Your task to perform on an android device: Show the shopping cart on ebay.com. Search for "usb-c to usb-a" on ebay.com, select the first entry, and add it to the cart. Image 0: 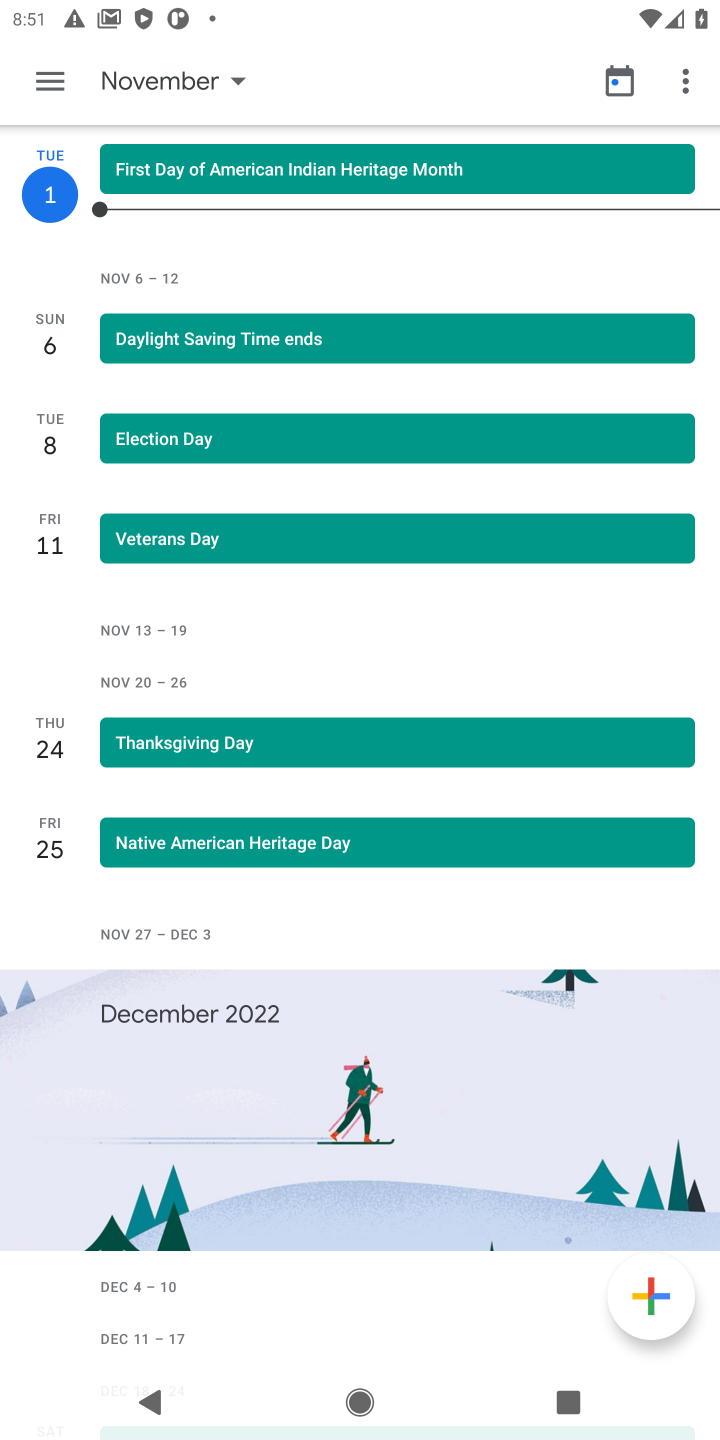
Step 0: press home button
Your task to perform on an android device: Show the shopping cart on ebay.com. Search for "usb-c to usb-a" on ebay.com, select the first entry, and add it to the cart. Image 1: 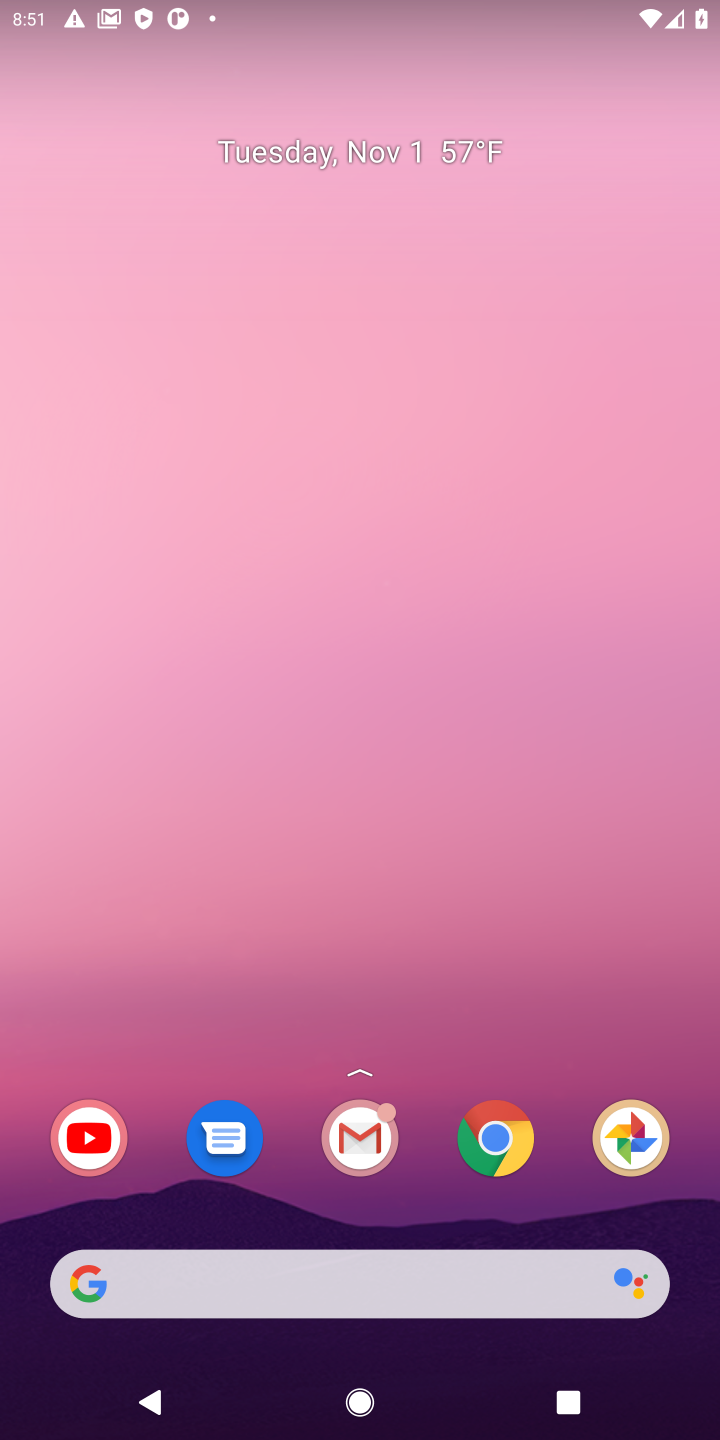
Step 1: click (499, 1165)
Your task to perform on an android device: Show the shopping cart on ebay.com. Search for "usb-c to usb-a" on ebay.com, select the first entry, and add it to the cart. Image 2: 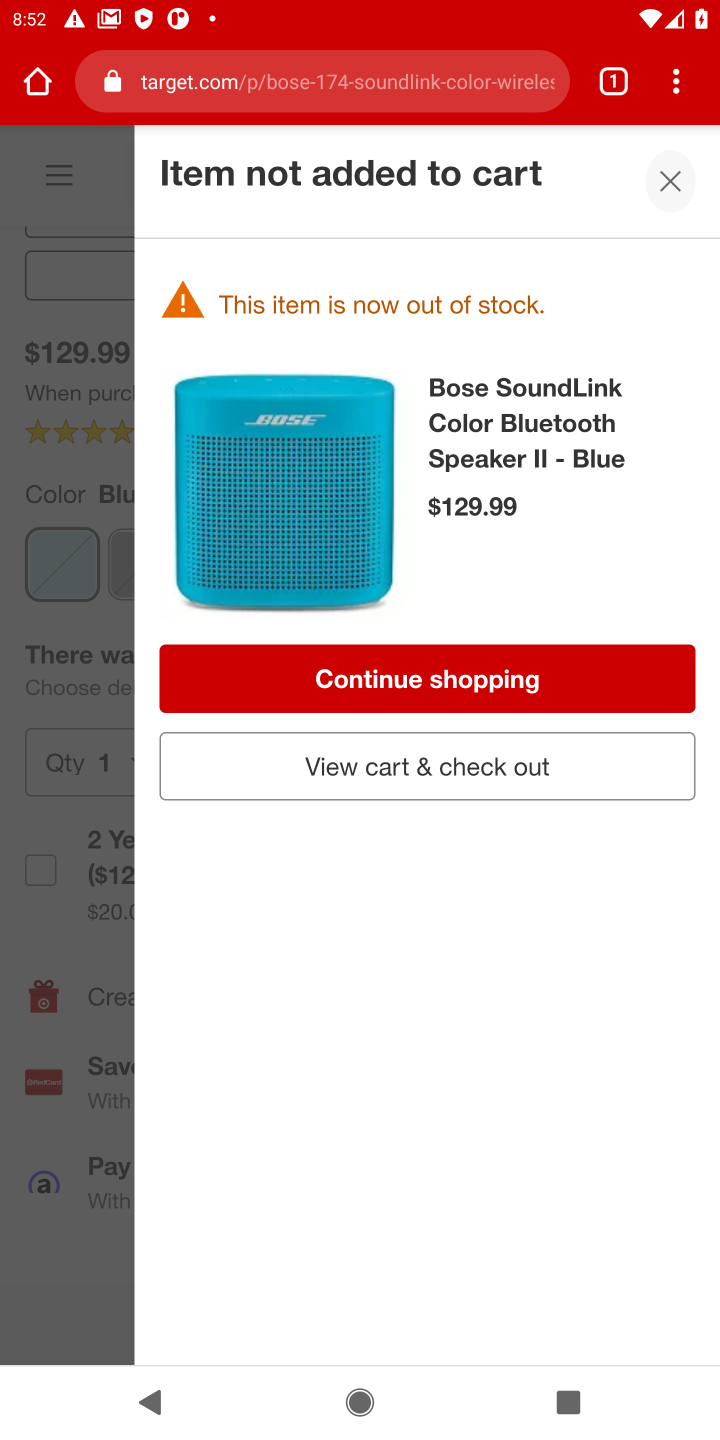
Step 2: click (236, 81)
Your task to perform on an android device: Show the shopping cart on ebay.com. Search for "usb-c to usb-a" on ebay.com, select the first entry, and add it to the cart. Image 3: 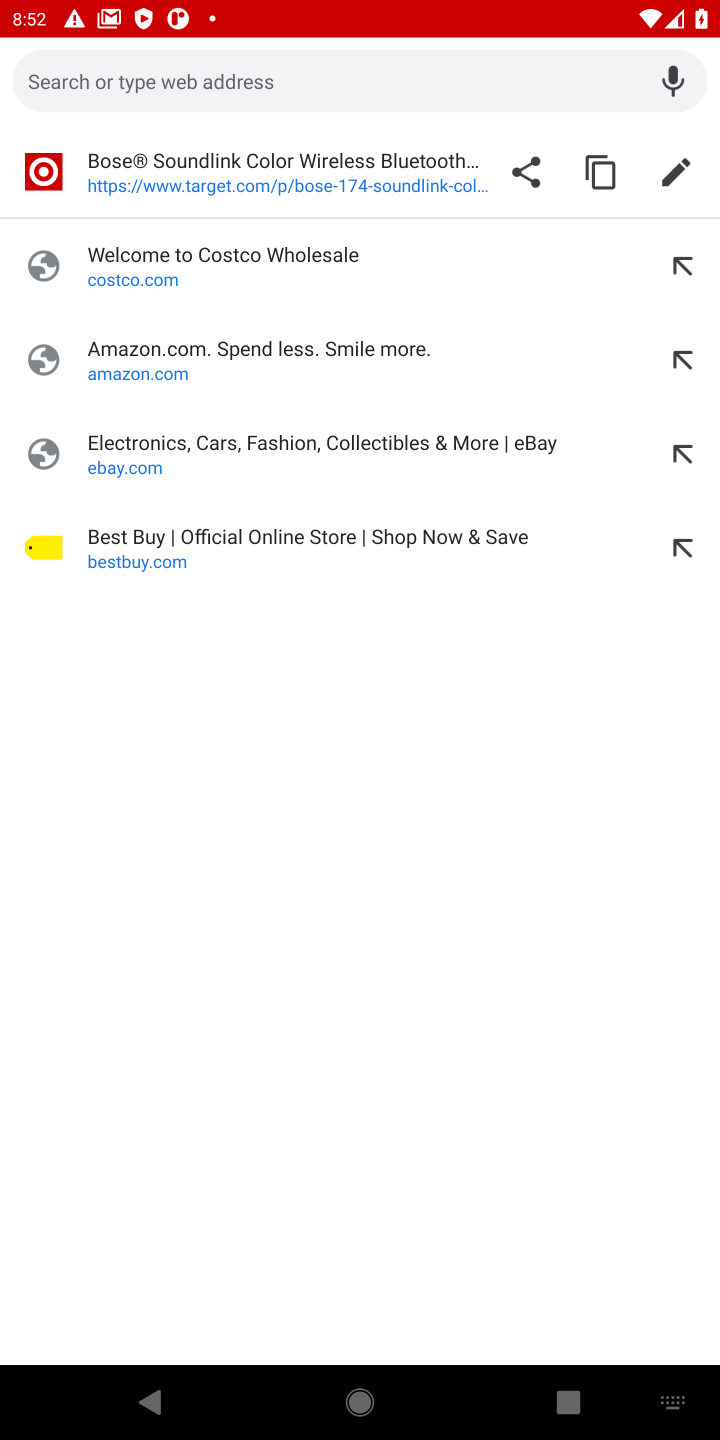
Step 3: click (109, 469)
Your task to perform on an android device: Show the shopping cart on ebay.com. Search for "usb-c to usb-a" on ebay.com, select the first entry, and add it to the cart. Image 4: 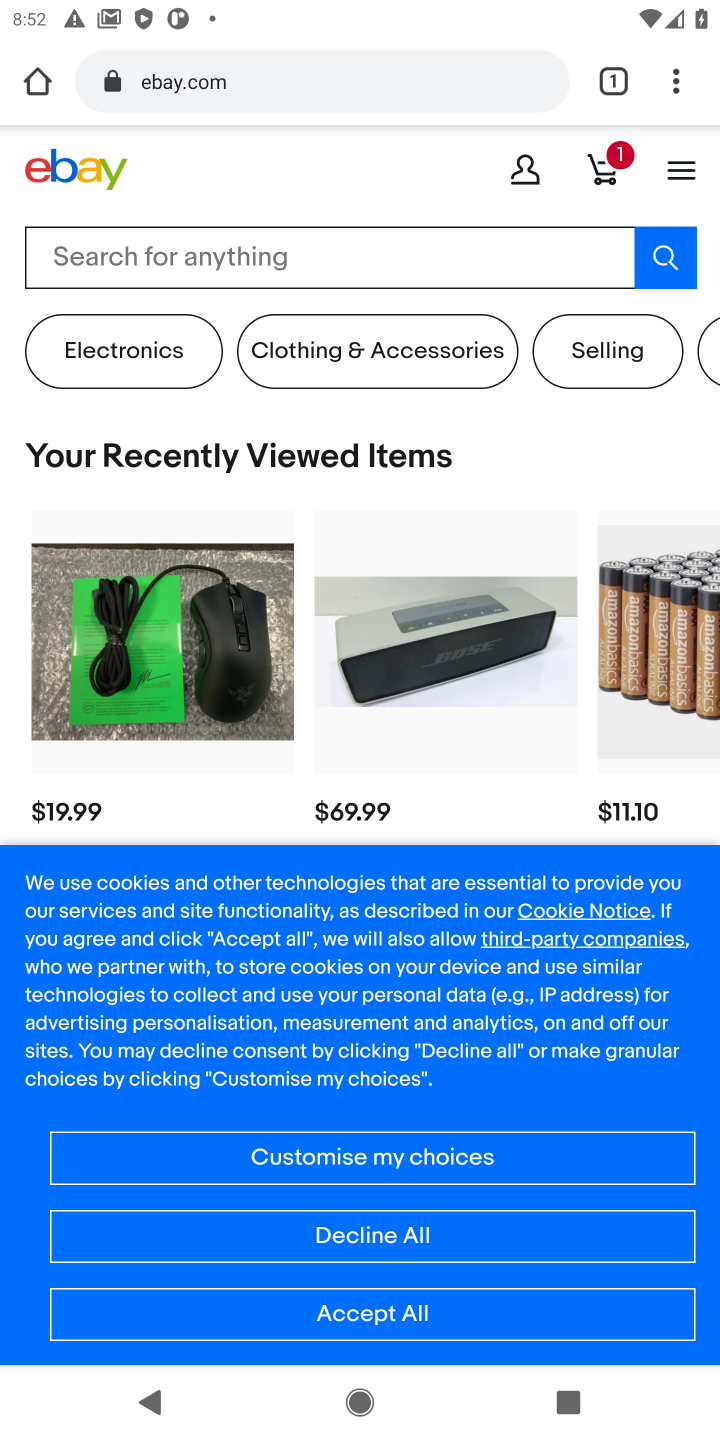
Step 4: click (604, 168)
Your task to perform on an android device: Show the shopping cart on ebay.com. Search for "usb-c to usb-a" on ebay.com, select the first entry, and add it to the cart. Image 5: 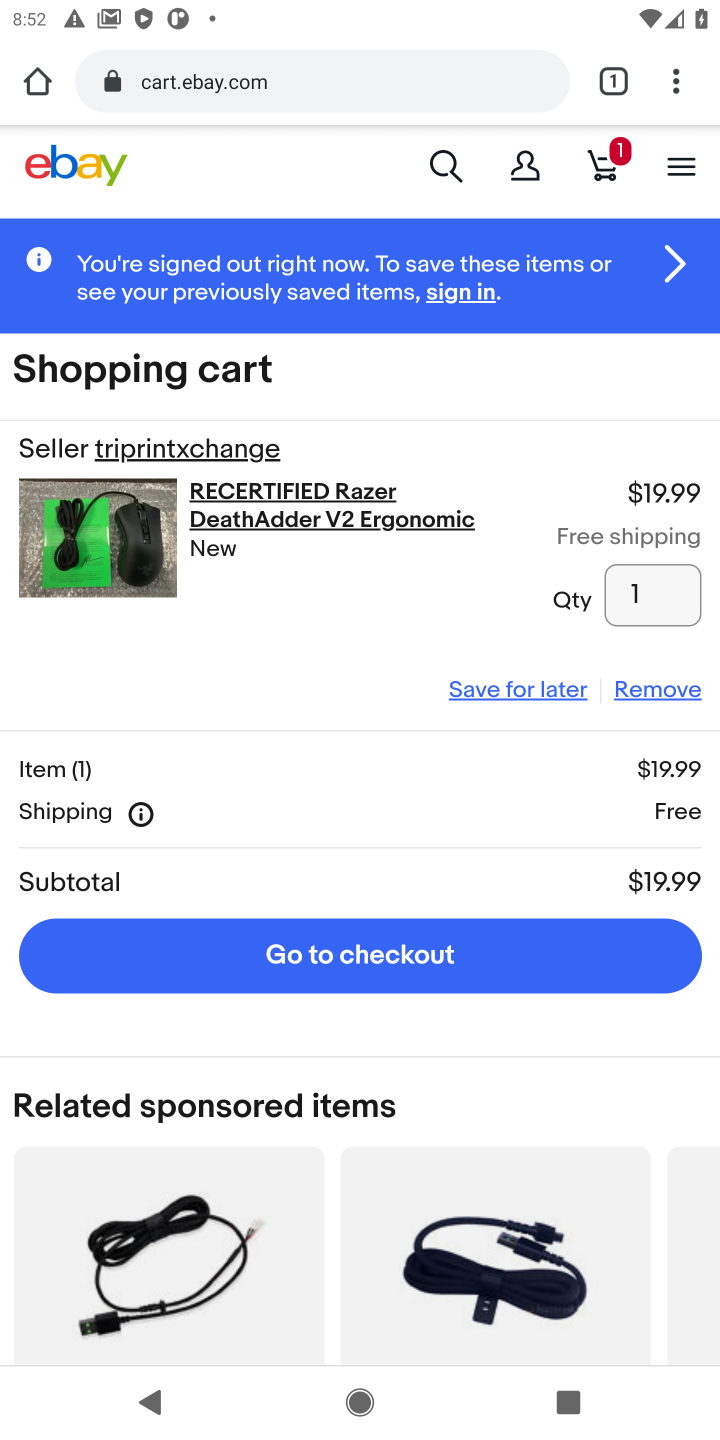
Step 5: click (433, 164)
Your task to perform on an android device: Show the shopping cart on ebay.com. Search for "usb-c to usb-a" on ebay.com, select the first entry, and add it to the cart. Image 6: 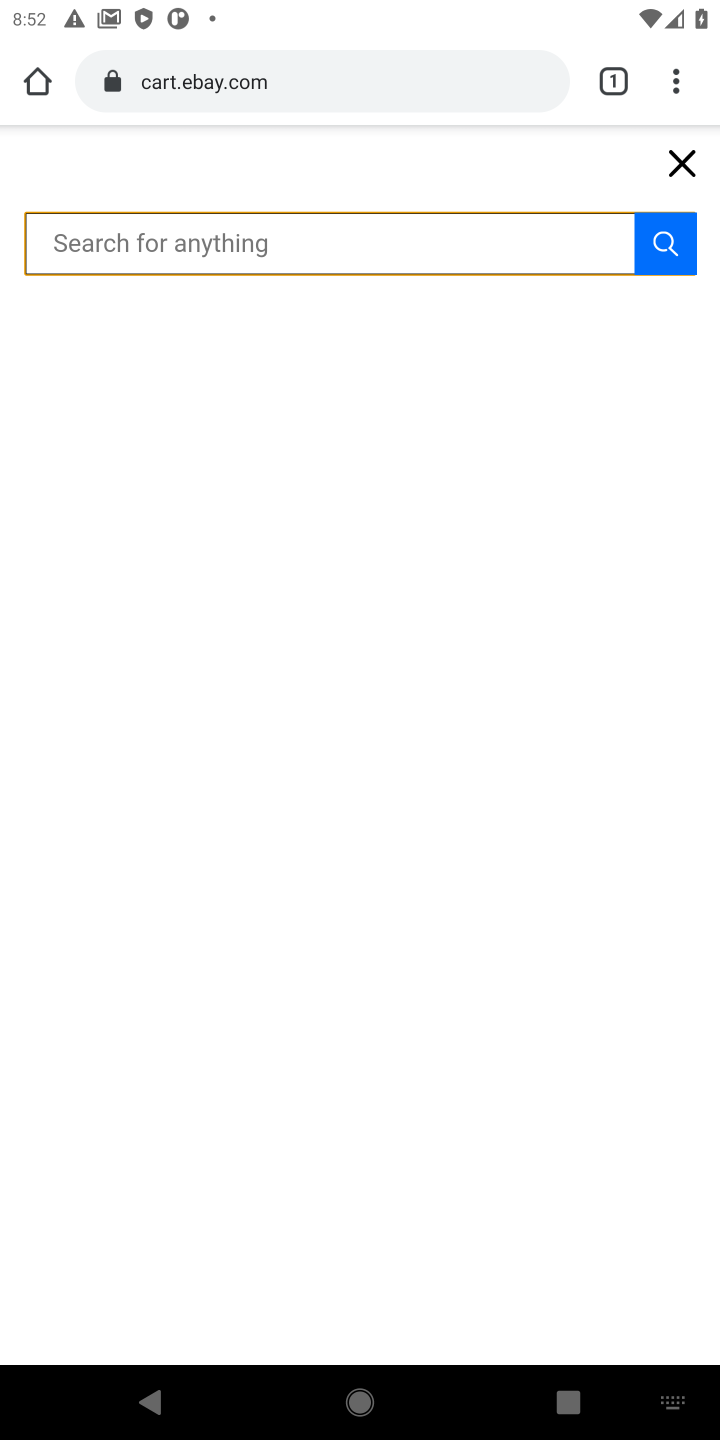
Step 6: type "usb-c to usb-a"
Your task to perform on an android device: Show the shopping cart on ebay.com. Search for "usb-c to usb-a" on ebay.com, select the first entry, and add it to the cart. Image 7: 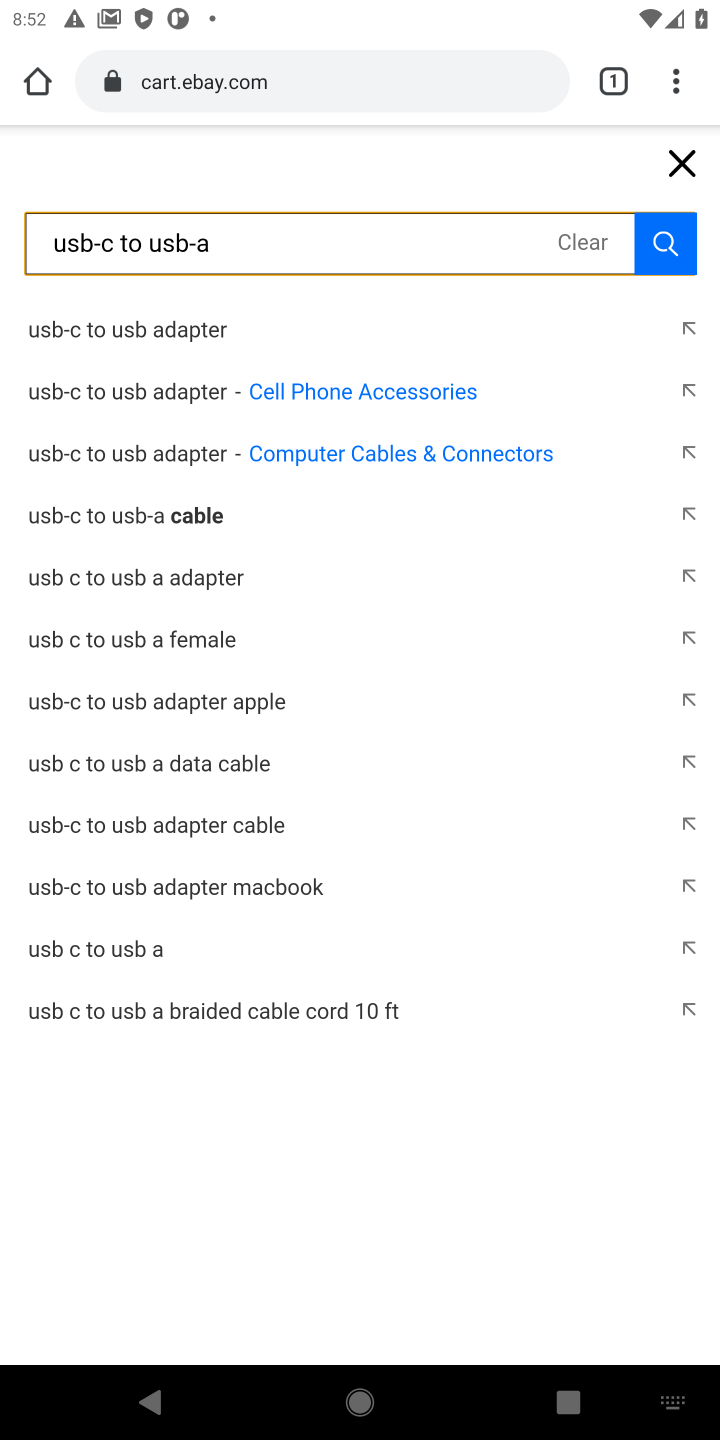
Step 7: click (113, 524)
Your task to perform on an android device: Show the shopping cart on ebay.com. Search for "usb-c to usb-a" on ebay.com, select the first entry, and add it to the cart. Image 8: 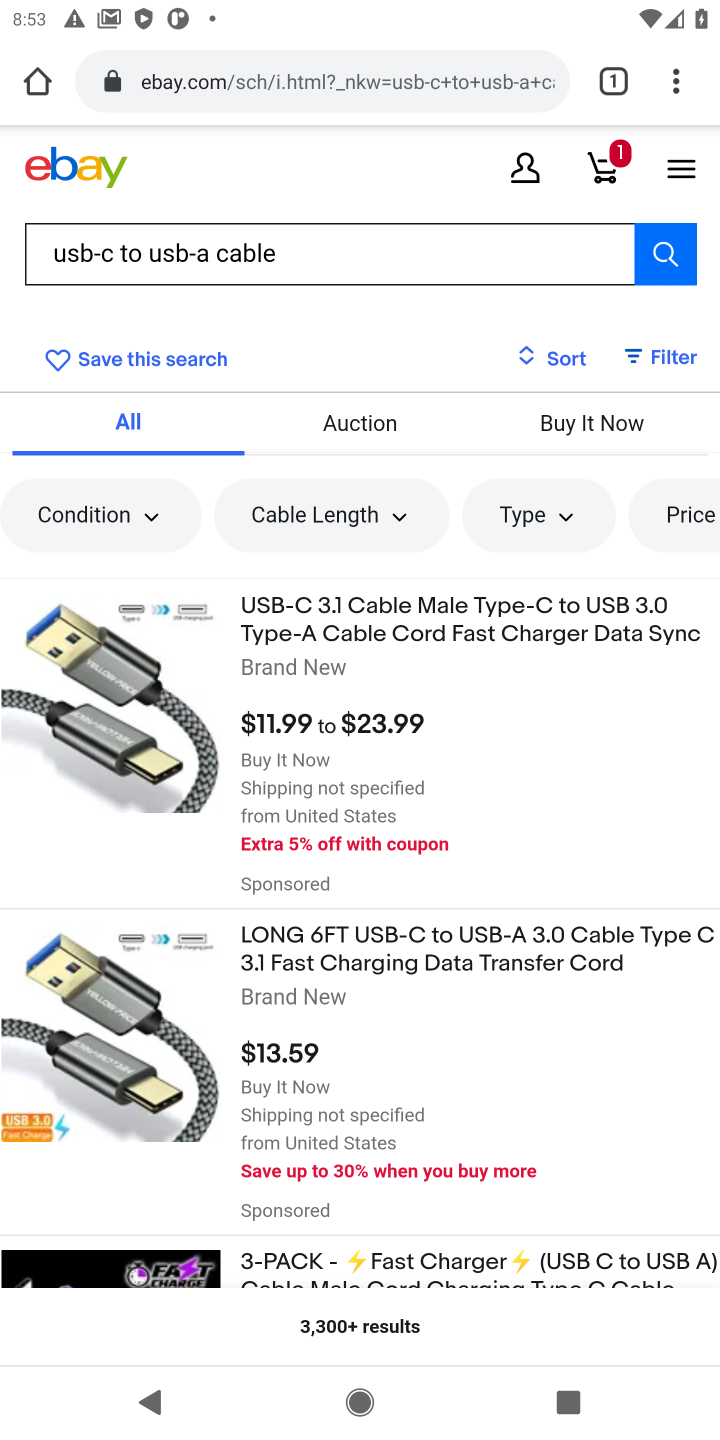
Step 8: click (246, 776)
Your task to perform on an android device: Show the shopping cart on ebay.com. Search for "usb-c to usb-a" on ebay.com, select the first entry, and add it to the cart. Image 9: 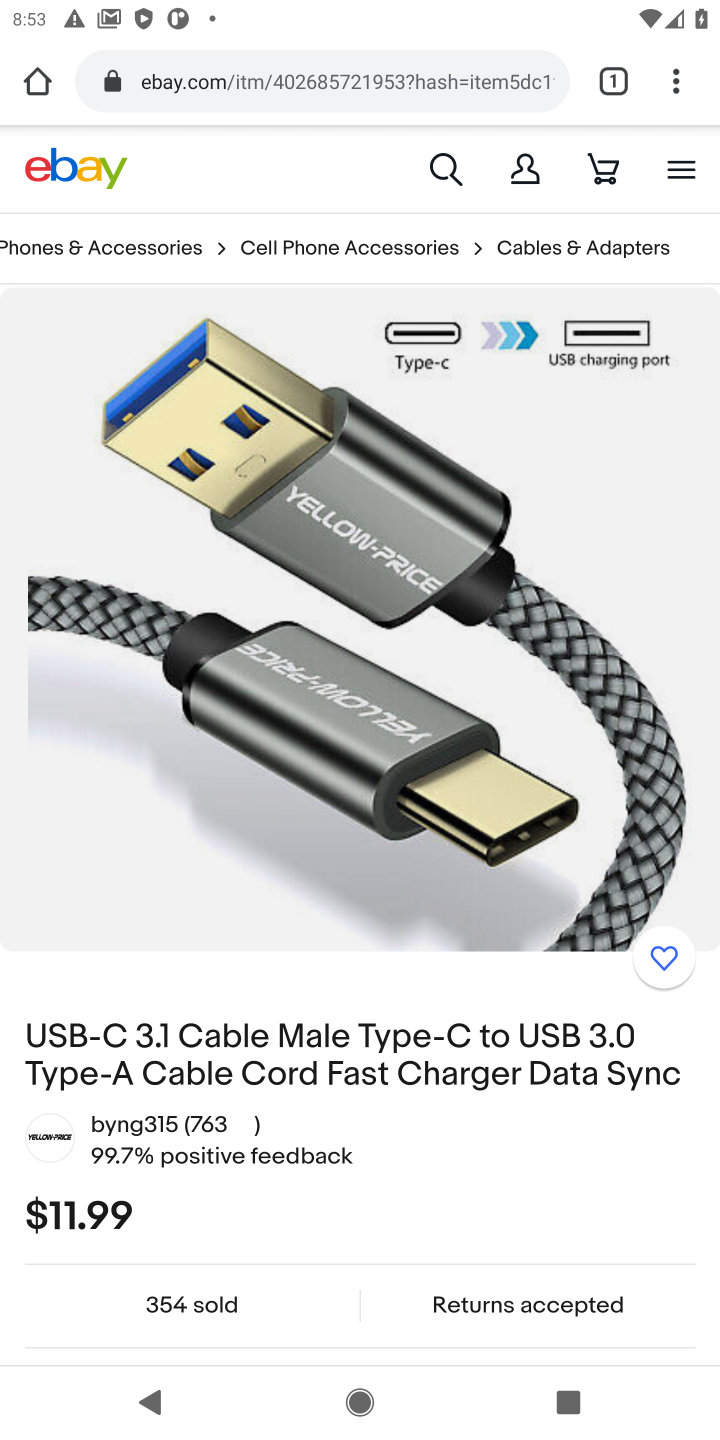
Step 9: drag from (412, 1046) to (419, 214)
Your task to perform on an android device: Show the shopping cart on ebay.com. Search for "usb-c to usb-a" on ebay.com, select the first entry, and add it to the cart. Image 10: 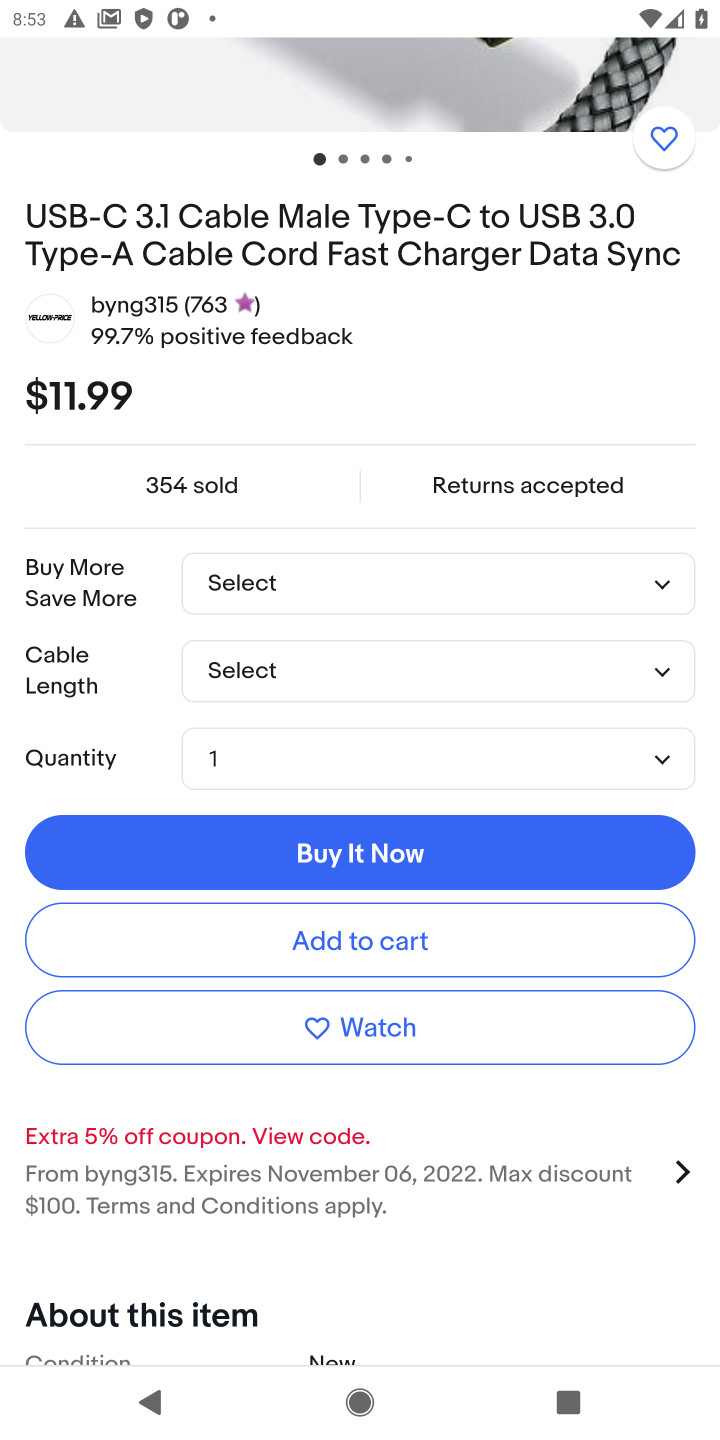
Step 10: click (339, 937)
Your task to perform on an android device: Show the shopping cart on ebay.com. Search for "usb-c to usb-a" on ebay.com, select the first entry, and add it to the cart. Image 11: 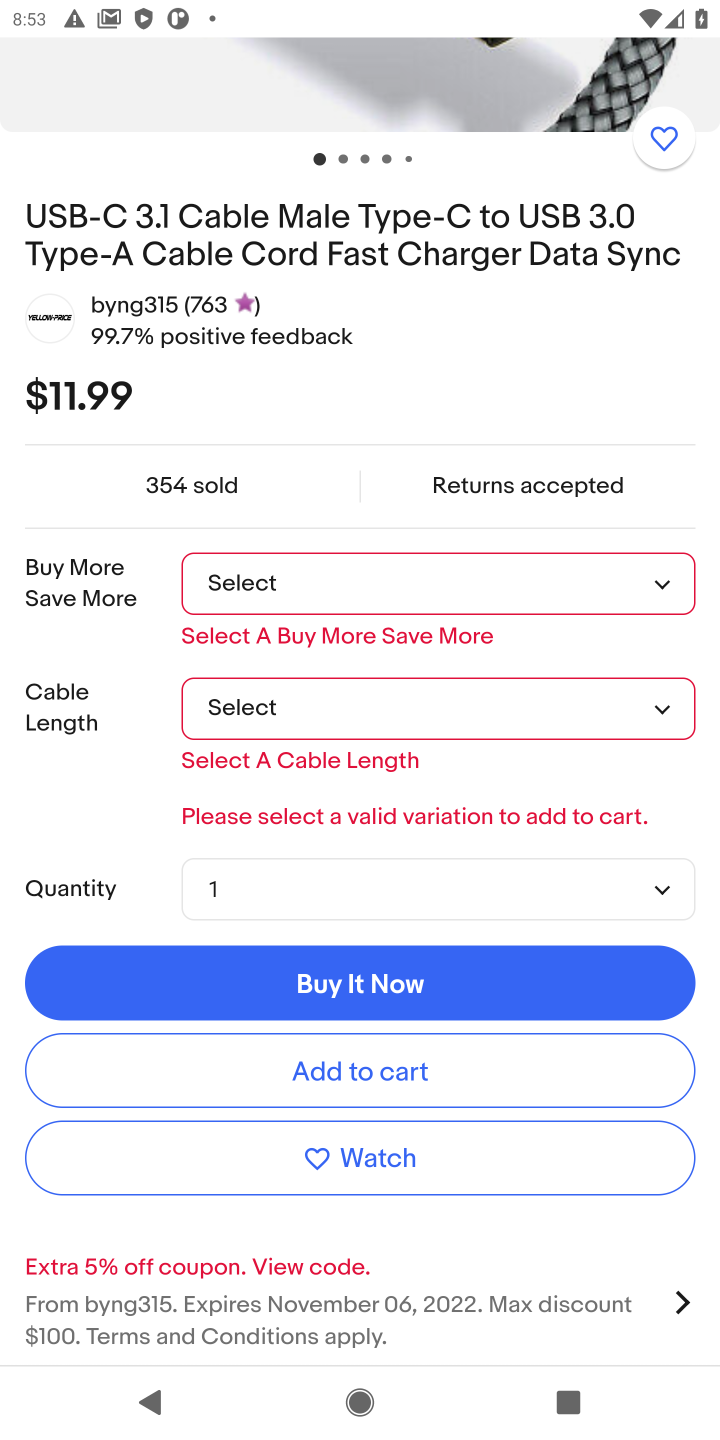
Step 11: click (658, 715)
Your task to perform on an android device: Show the shopping cart on ebay.com. Search for "usb-c to usb-a" on ebay.com, select the first entry, and add it to the cart. Image 12: 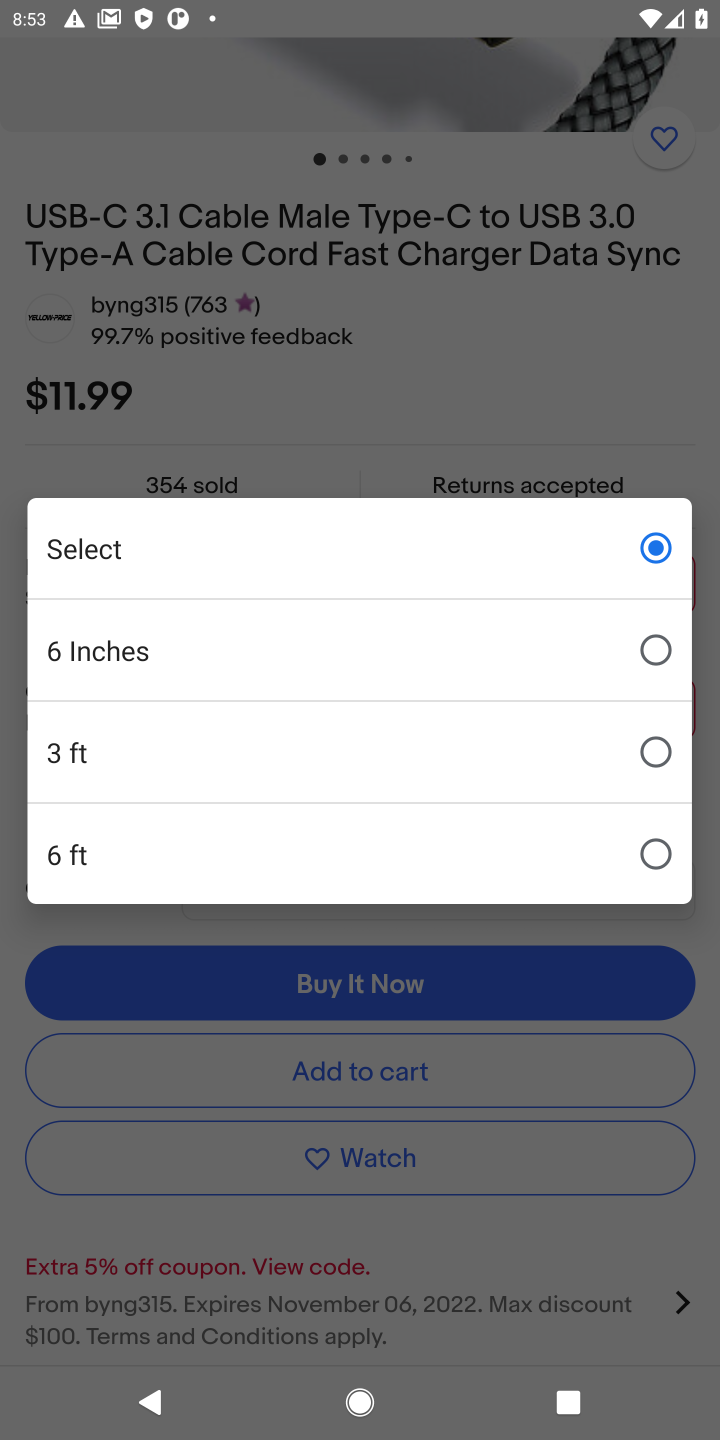
Step 12: click (77, 657)
Your task to perform on an android device: Show the shopping cart on ebay.com. Search for "usb-c to usb-a" on ebay.com, select the first entry, and add it to the cart. Image 13: 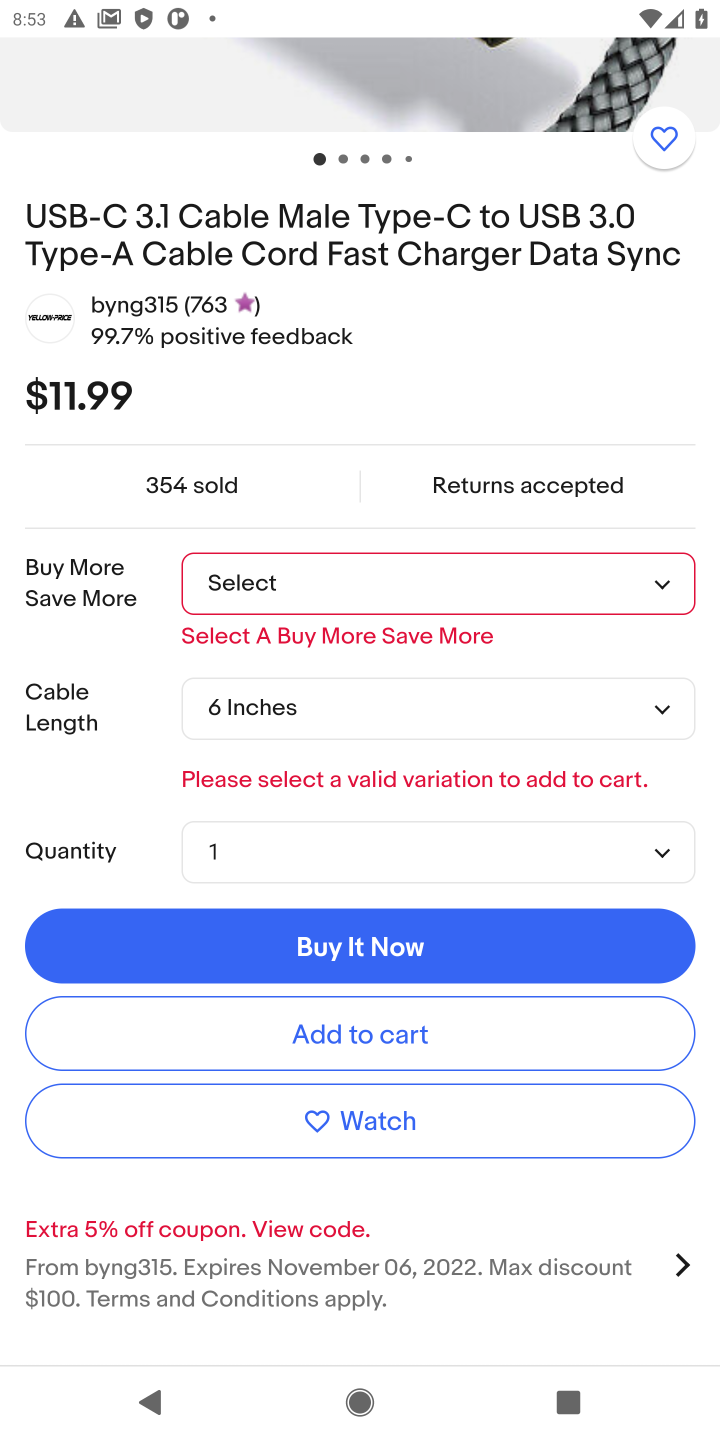
Step 13: click (667, 592)
Your task to perform on an android device: Show the shopping cart on ebay.com. Search for "usb-c to usb-a" on ebay.com, select the first entry, and add it to the cart. Image 14: 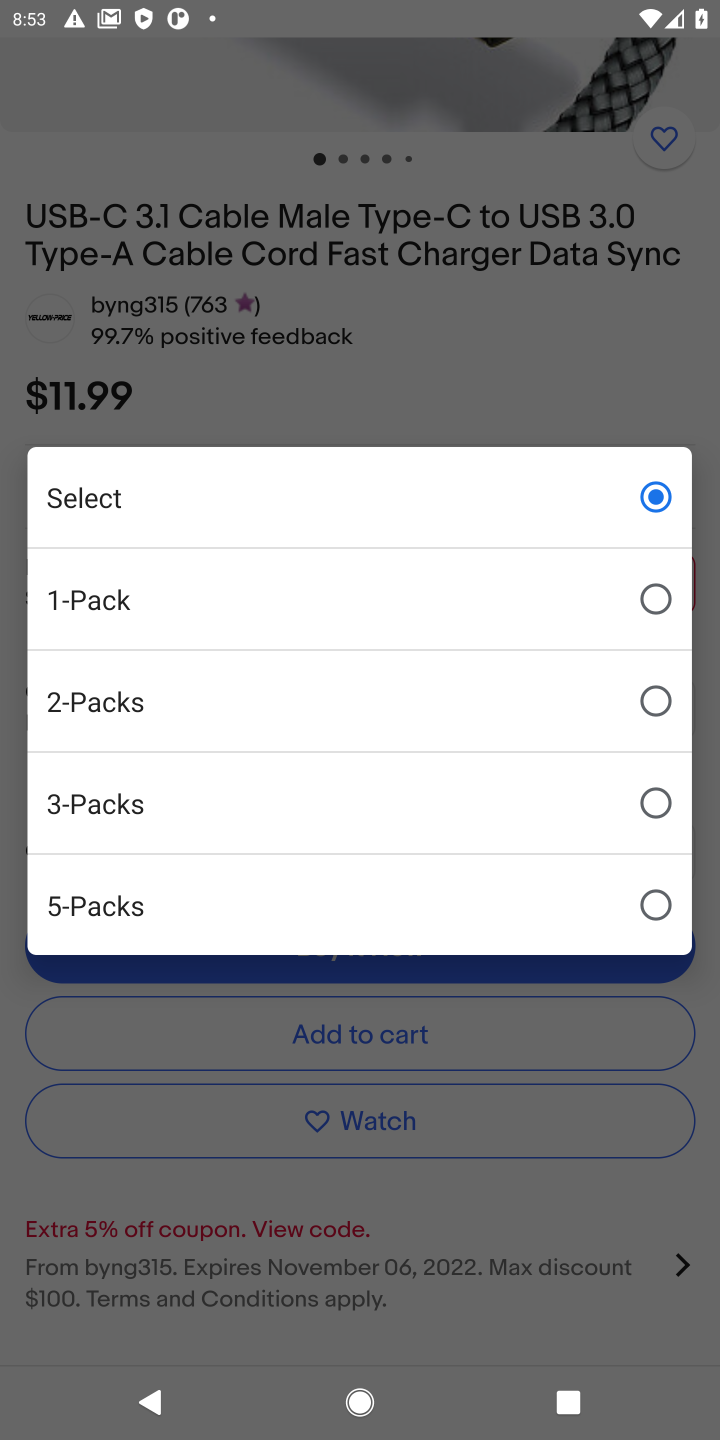
Step 14: click (115, 609)
Your task to perform on an android device: Show the shopping cart on ebay.com. Search for "usb-c to usb-a" on ebay.com, select the first entry, and add it to the cart. Image 15: 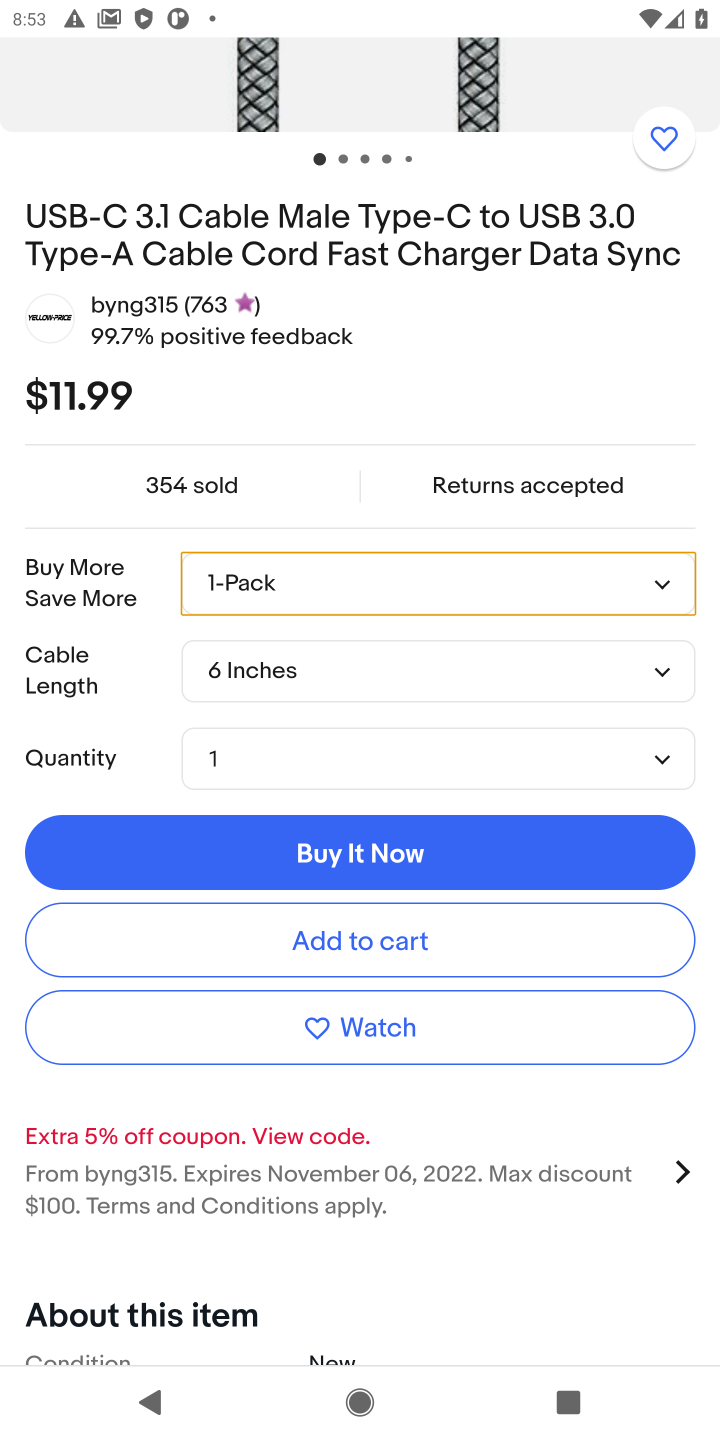
Step 15: click (338, 950)
Your task to perform on an android device: Show the shopping cart on ebay.com. Search for "usb-c to usb-a" on ebay.com, select the first entry, and add it to the cart. Image 16: 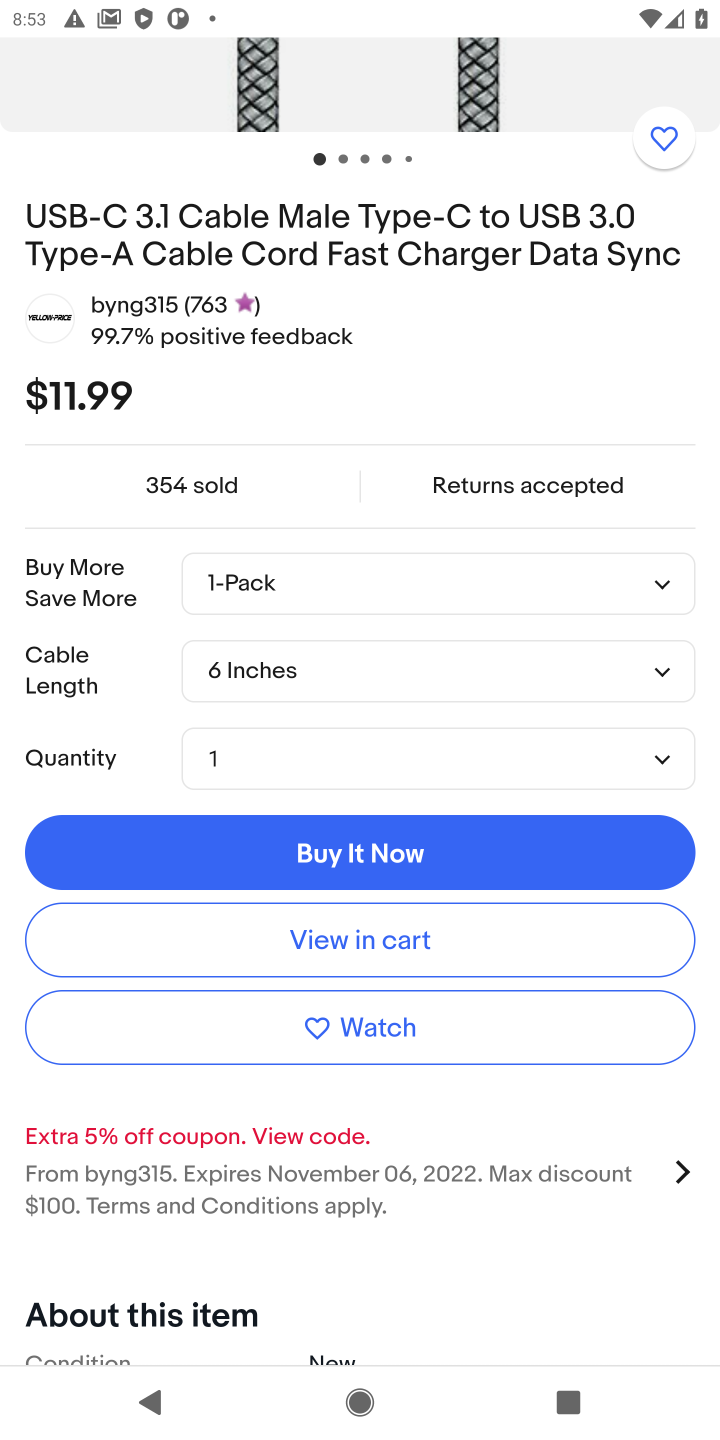
Step 16: click (338, 950)
Your task to perform on an android device: Show the shopping cart on ebay.com. Search for "usb-c to usb-a" on ebay.com, select the first entry, and add it to the cart. Image 17: 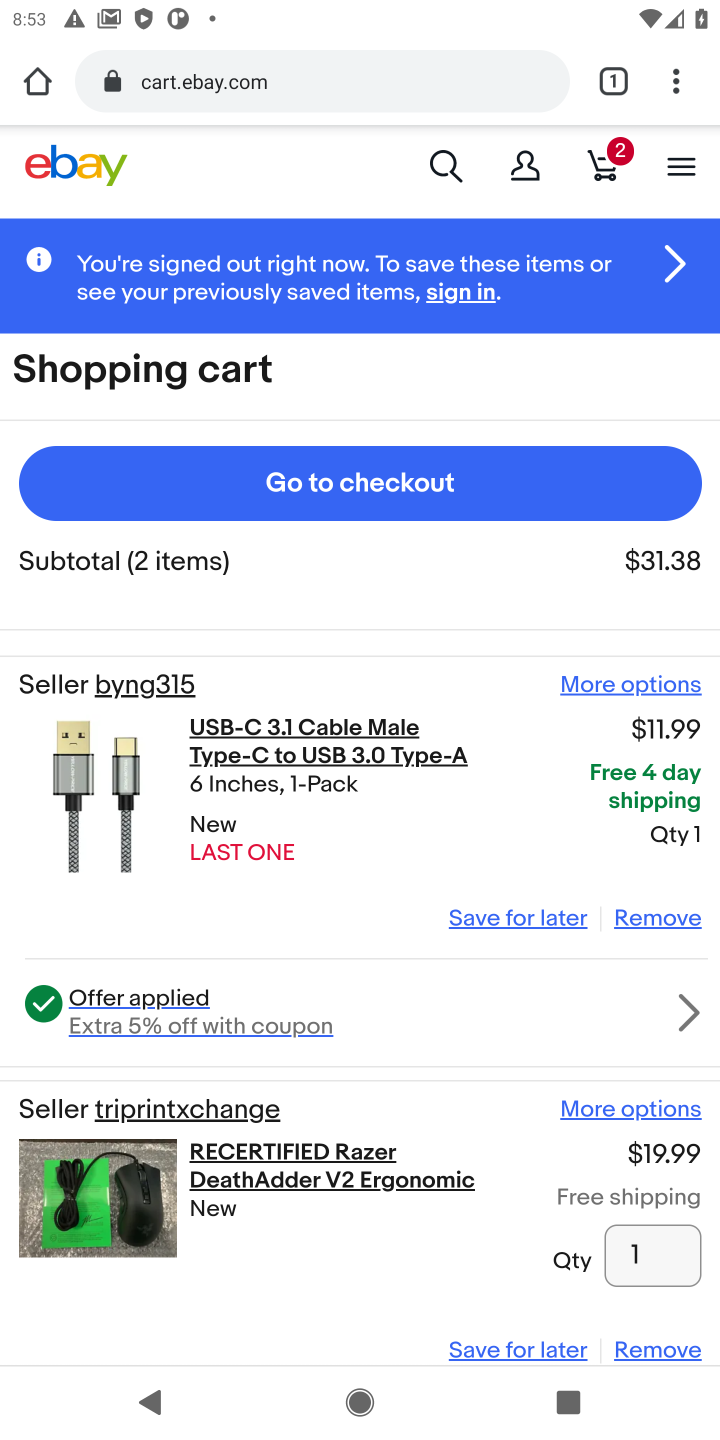
Step 17: task complete